Your task to perform on an android device: Open Google Chrome and click the shortcut for Amazon.com Image 0: 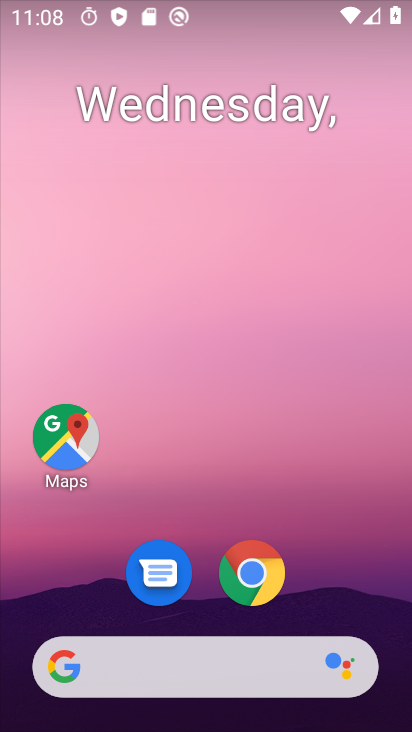
Step 0: drag from (383, 624) to (376, 180)
Your task to perform on an android device: Open Google Chrome and click the shortcut for Amazon.com Image 1: 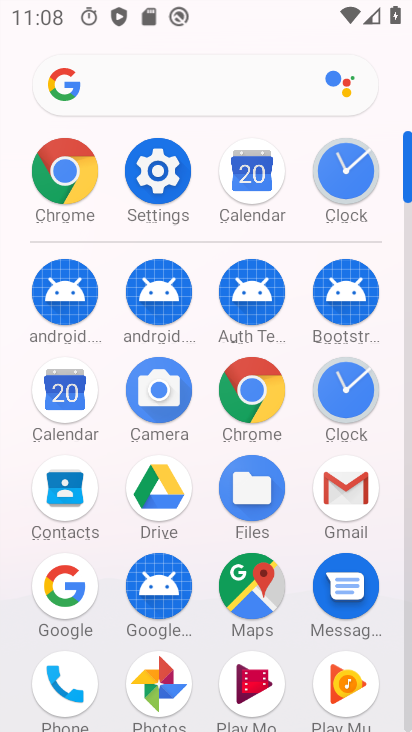
Step 1: drag from (98, 587) to (81, 250)
Your task to perform on an android device: Open Google Chrome and click the shortcut for Amazon.com Image 2: 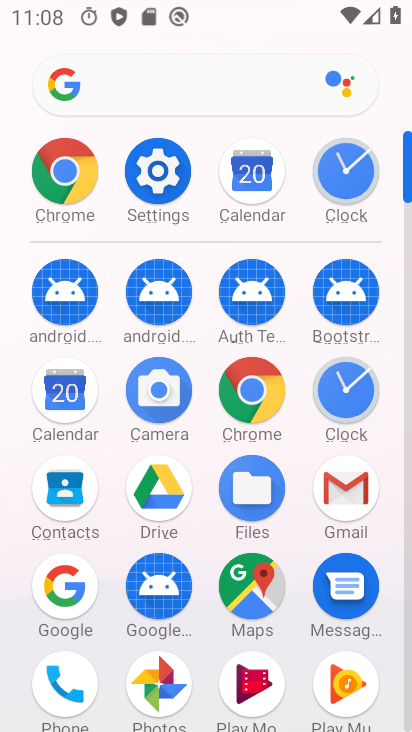
Step 2: click (88, 163)
Your task to perform on an android device: Open Google Chrome and click the shortcut for Amazon.com Image 3: 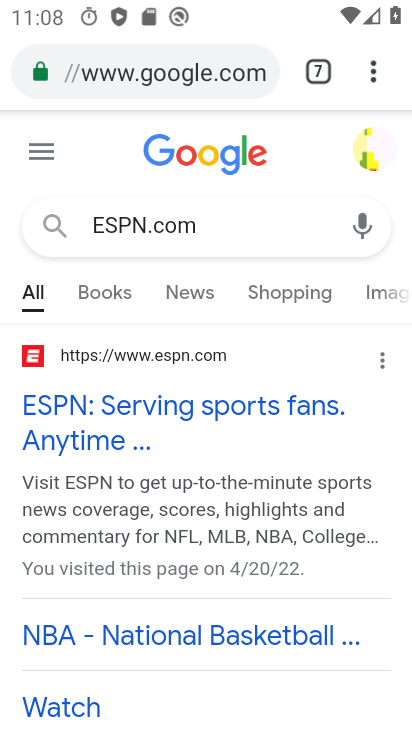
Step 3: click (373, 57)
Your task to perform on an android device: Open Google Chrome and click the shortcut for Amazon.com Image 4: 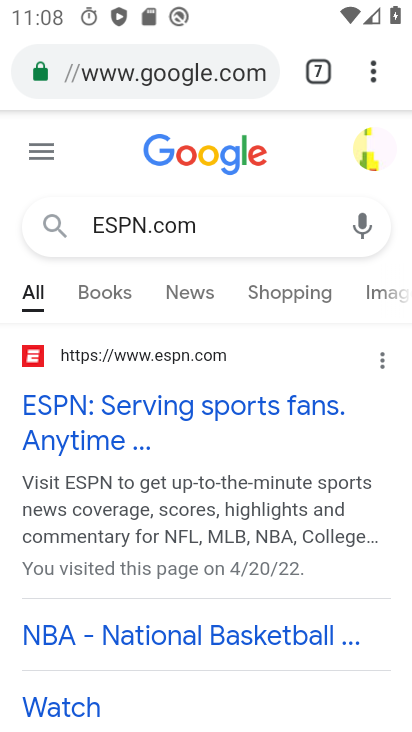
Step 4: click (374, 62)
Your task to perform on an android device: Open Google Chrome and click the shortcut for Amazon.com Image 5: 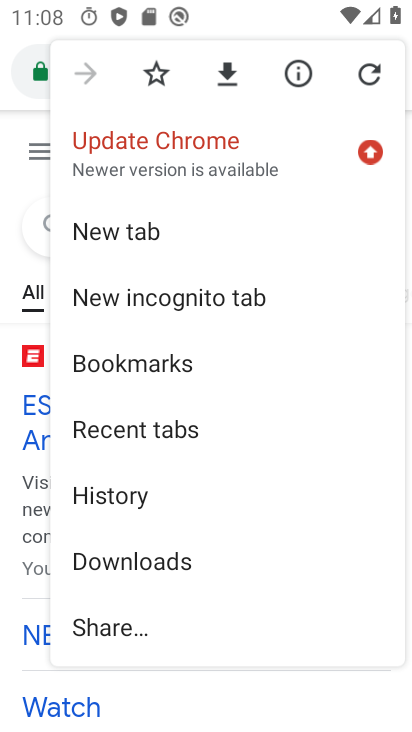
Step 5: click (143, 225)
Your task to perform on an android device: Open Google Chrome and click the shortcut for Amazon.com Image 6: 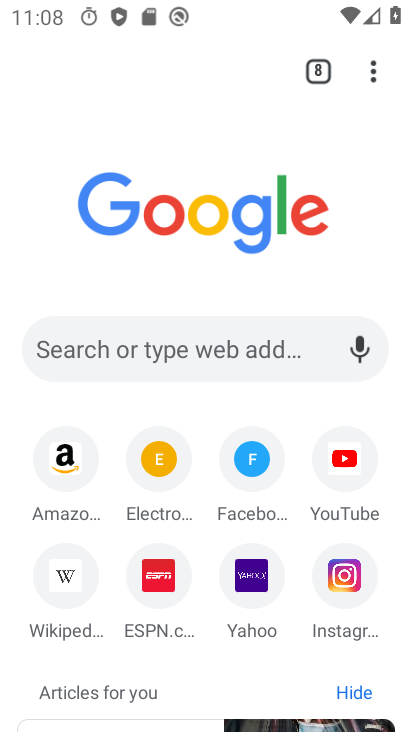
Step 6: click (63, 473)
Your task to perform on an android device: Open Google Chrome and click the shortcut for Amazon.com Image 7: 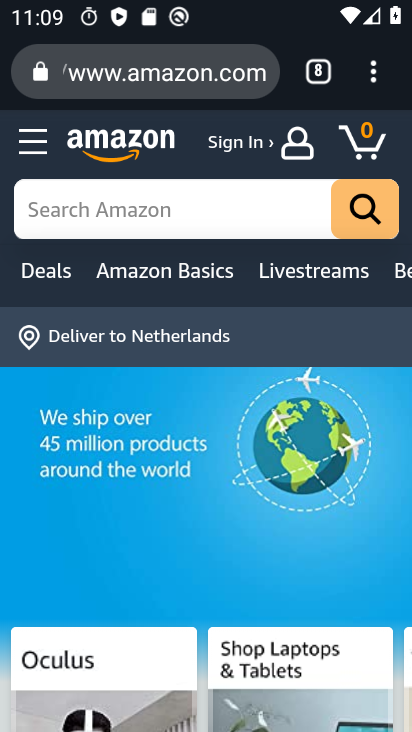
Step 7: task complete